Your task to perform on an android device: toggle sleep mode Image 0: 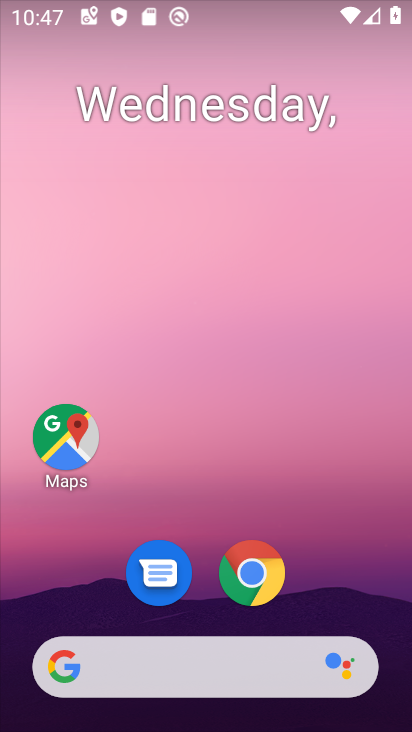
Step 0: drag from (266, 499) to (259, 43)
Your task to perform on an android device: toggle sleep mode Image 1: 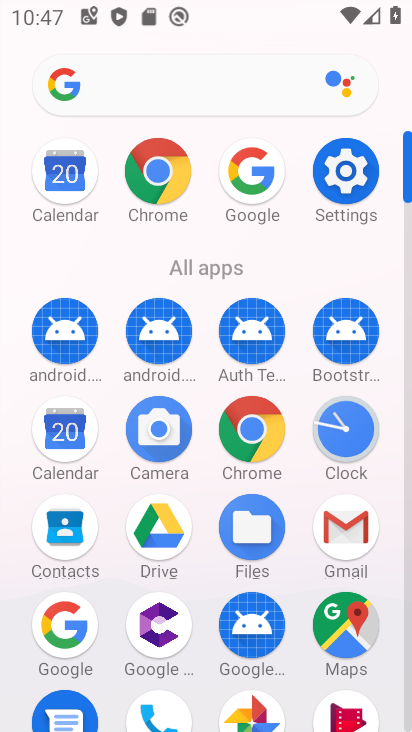
Step 1: click (345, 170)
Your task to perform on an android device: toggle sleep mode Image 2: 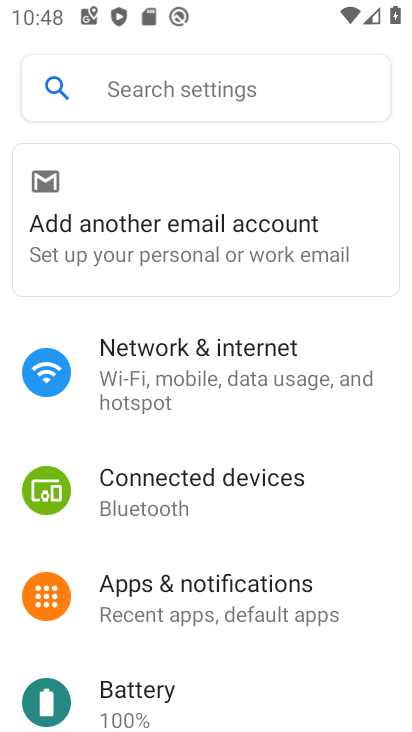
Step 2: drag from (213, 550) to (222, 449)
Your task to perform on an android device: toggle sleep mode Image 3: 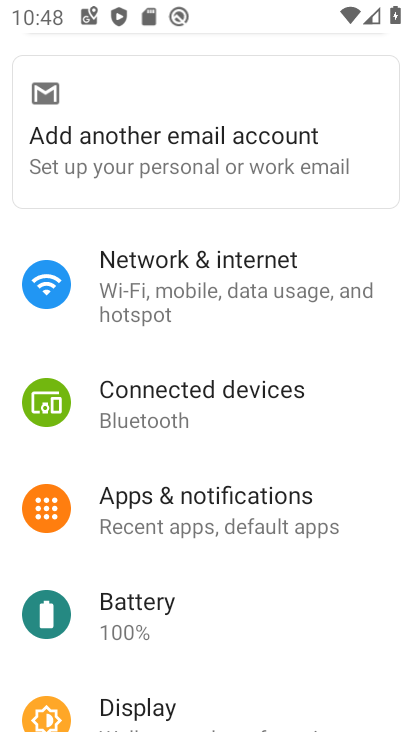
Step 3: drag from (188, 646) to (216, 531)
Your task to perform on an android device: toggle sleep mode Image 4: 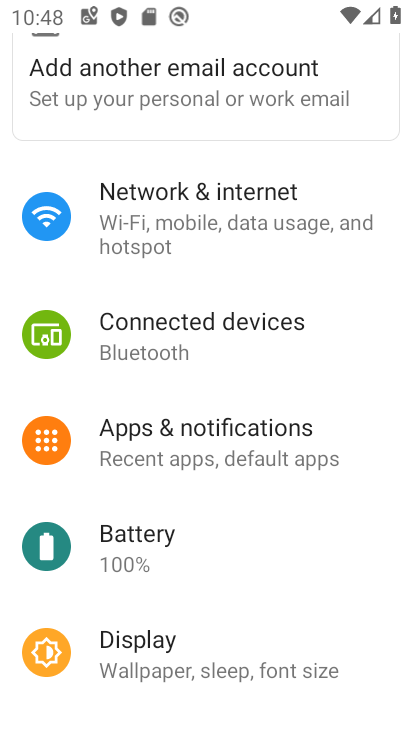
Step 4: click (241, 667)
Your task to perform on an android device: toggle sleep mode Image 5: 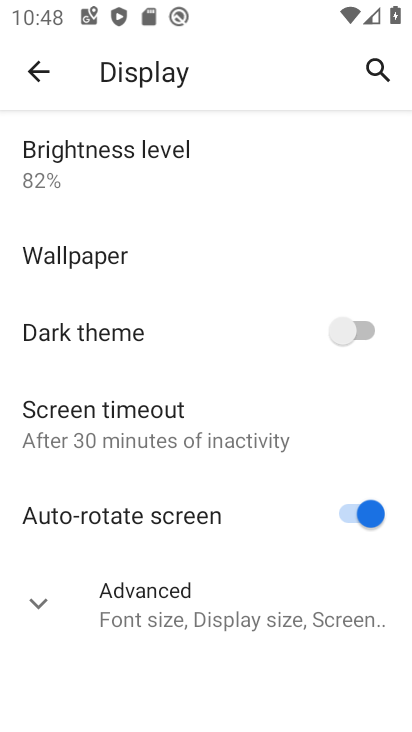
Step 5: click (171, 618)
Your task to perform on an android device: toggle sleep mode Image 6: 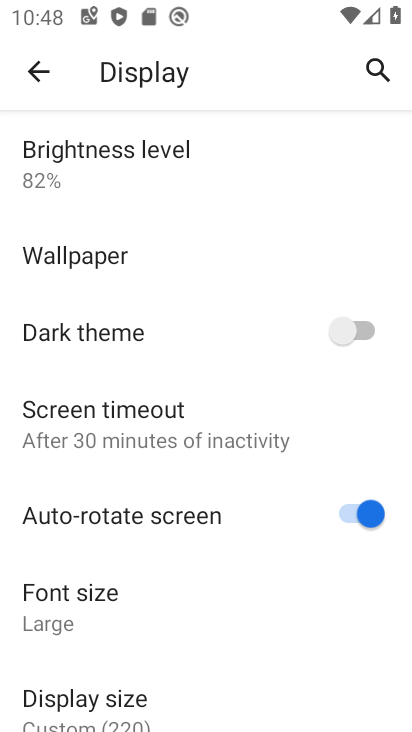
Step 6: task complete